Your task to perform on an android device: What's the weather today? Image 0: 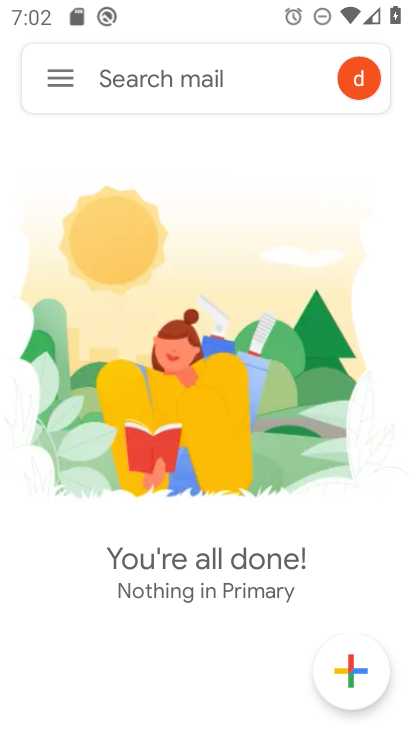
Step 0: press home button
Your task to perform on an android device: What's the weather today? Image 1: 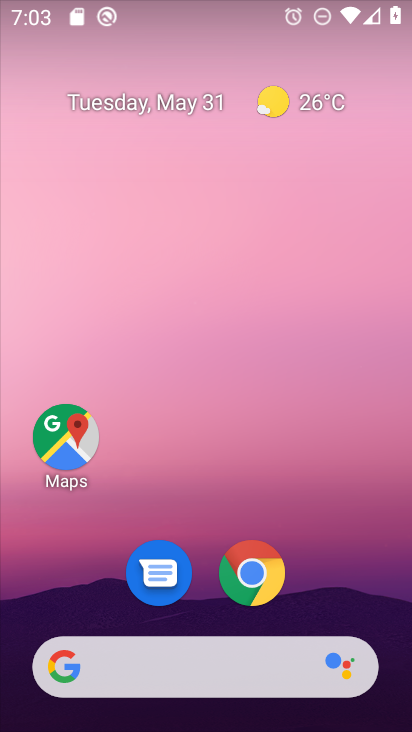
Step 1: drag from (396, 665) to (268, 103)
Your task to perform on an android device: What's the weather today? Image 2: 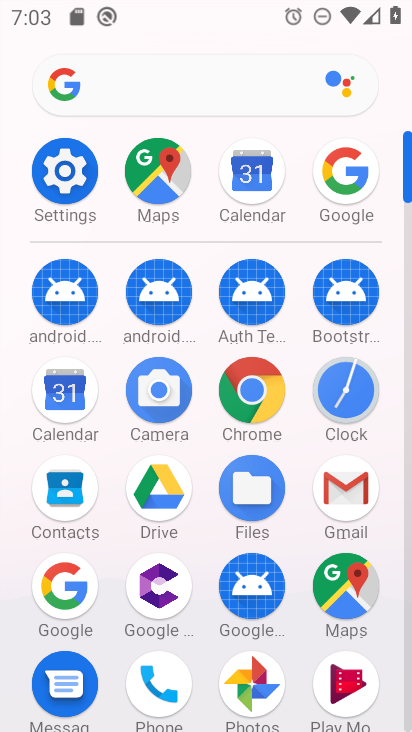
Step 2: click (78, 591)
Your task to perform on an android device: What's the weather today? Image 3: 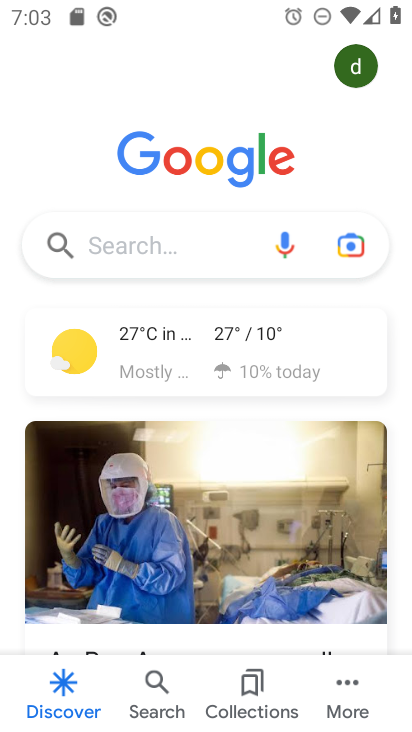
Step 3: click (163, 130)
Your task to perform on an android device: What's the weather today? Image 4: 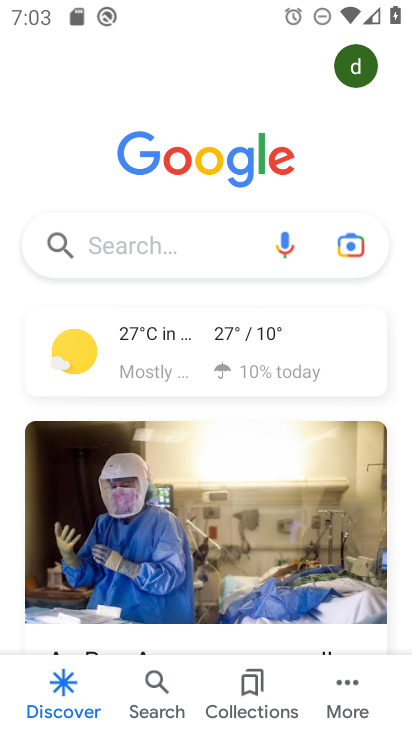
Step 4: click (152, 229)
Your task to perform on an android device: What's the weather today? Image 5: 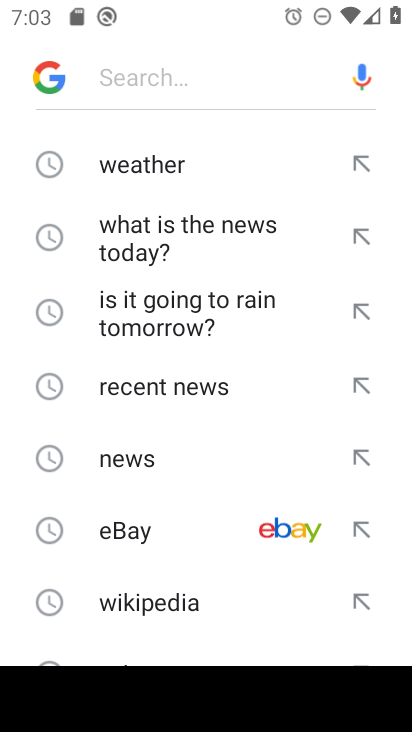
Step 5: drag from (151, 583) to (183, 178)
Your task to perform on an android device: What's the weather today? Image 6: 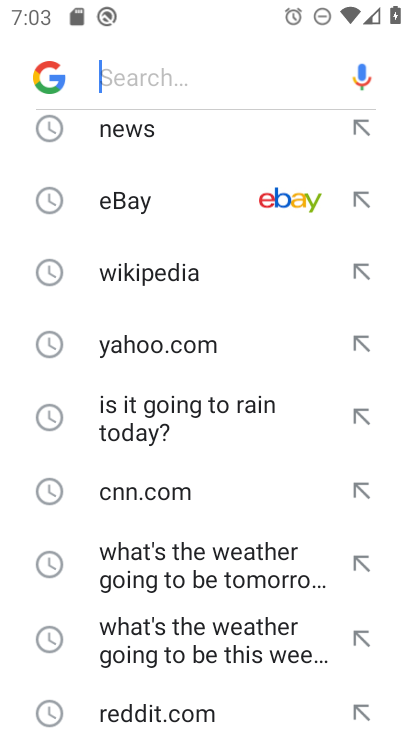
Step 6: drag from (189, 663) to (208, 304)
Your task to perform on an android device: What's the weather today? Image 7: 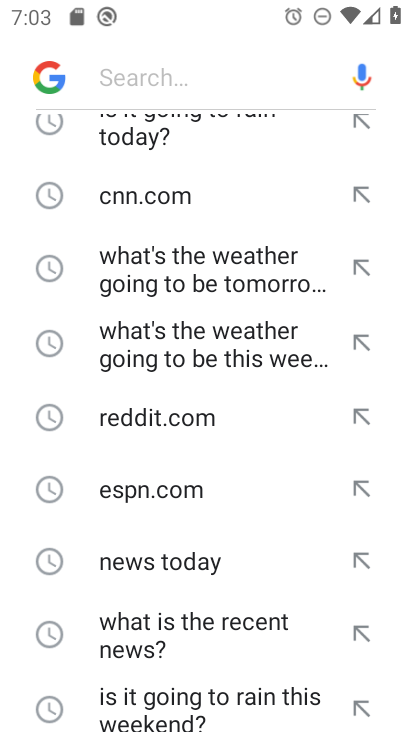
Step 7: drag from (182, 646) to (201, 295)
Your task to perform on an android device: What's the weather today? Image 8: 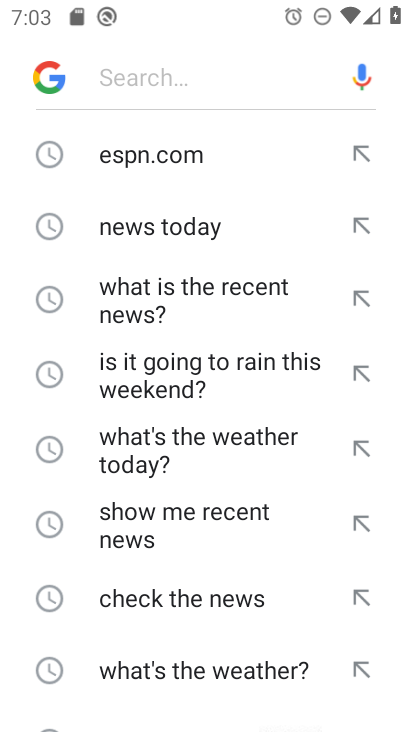
Step 8: click (207, 449)
Your task to perform on an android device: What's the weather today? Image 9: 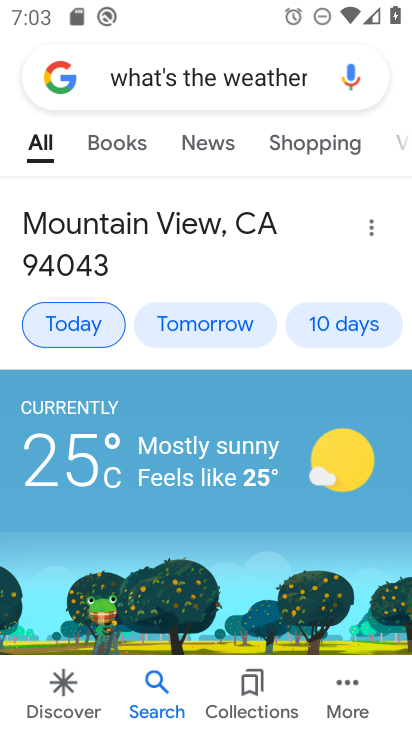
Step 9: task complete